Your task to perform on an android device: Open calendar and show me the fourth week of next month Image 0: 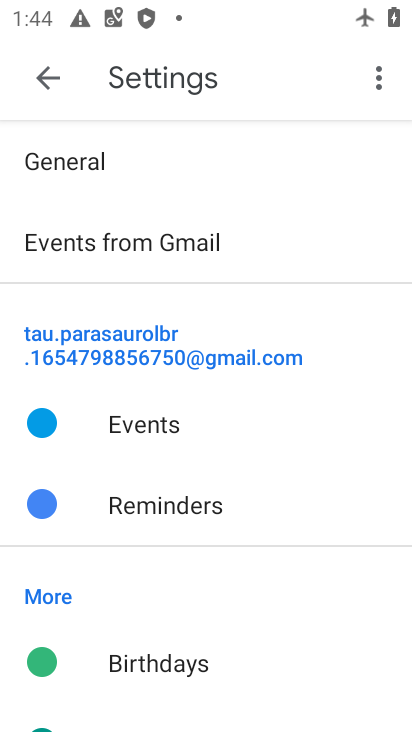
Step 0: press home button
Your task to perform on an android device: Open calendar and show me the fourth week of next month Image 1: 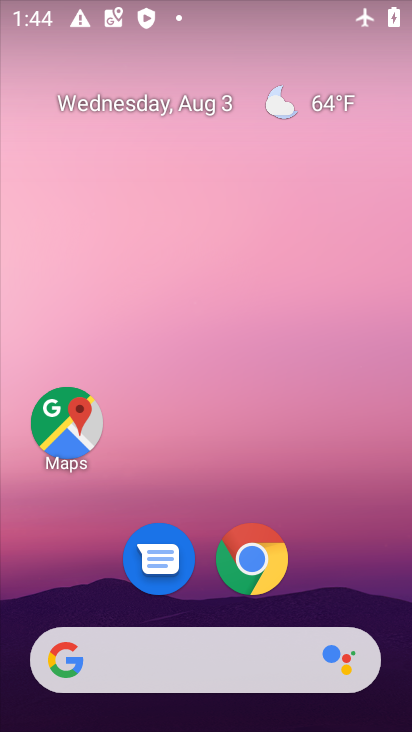
Step 1: drag from (198, 603) to (197, 143)
Your task to perform on an android device: Open calendar and show me the fourth week of next month Image 2: 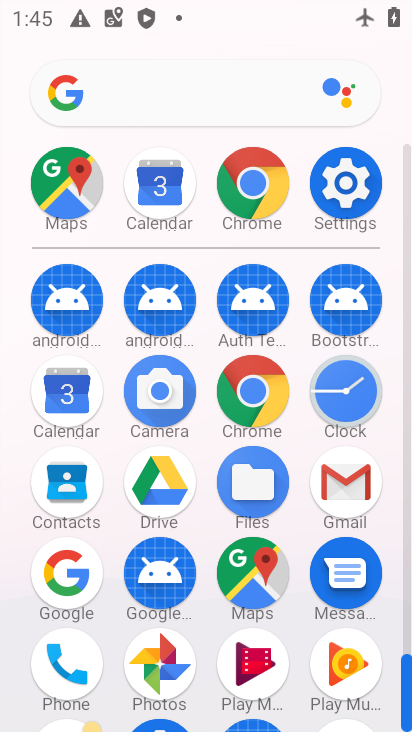
Step 2: click (67, 403)
Your task to perform on an android device: Open calendar and show me the fourth week of next month Image 3: 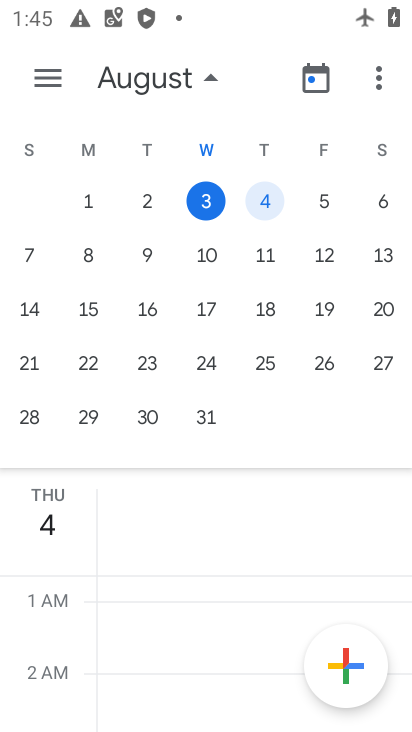
Step 3: drag from (335, 286) to (45, 273)
Your task to perform on an android device: Open calendar and show me the fourth week of next month Image 4: 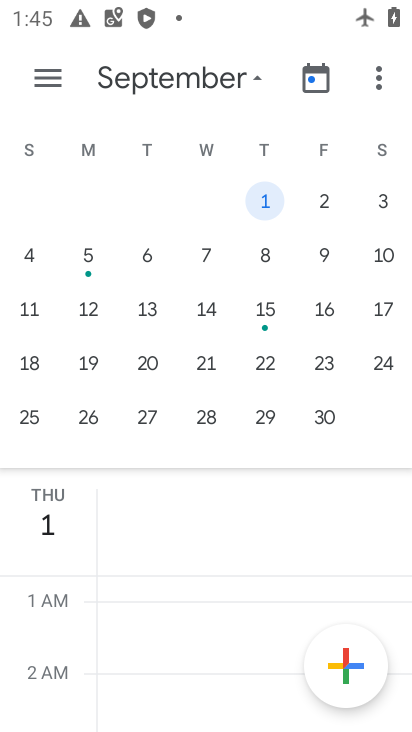
Step 4: click (85, 365)
Your task to perform on an android device: Open calendar and show me the fourth week of next month Image 5: 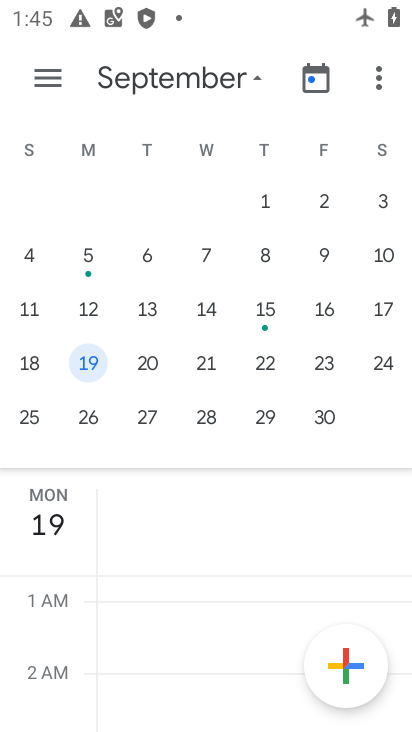
Step 5: click (51, 73)
Your task to perform on an android device: Open calendar and show me the fourth week of next month Image 6: 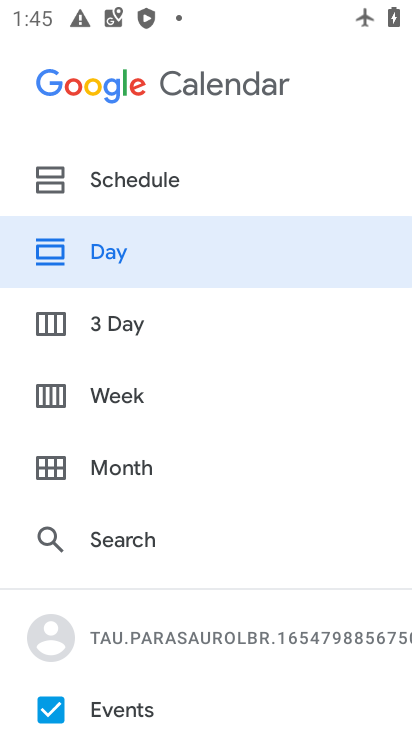
Step 6: click (130, 390)
Your task to perform on an android device: Open calendar and show me the fourth week of next month Image 7: 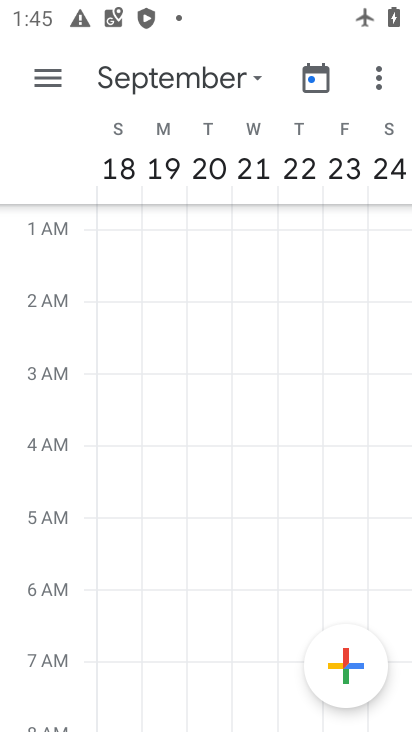
Step 7: task complete